Your task to perform on an android device: Open the calendar and show me this week's events? Image 0: 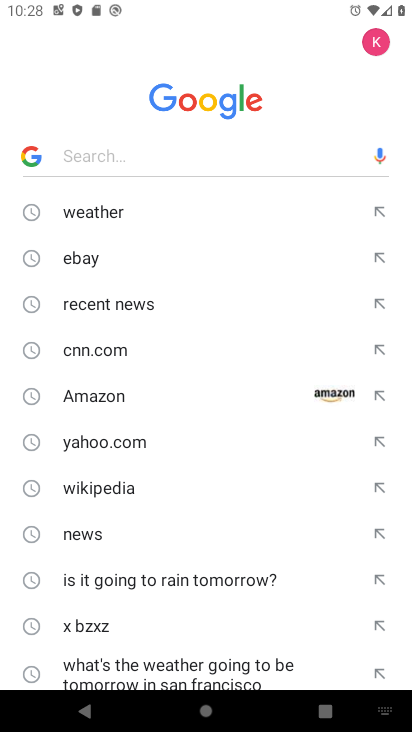
Step 0: press home button
Your task to perform on an android device: Open the calendar and show me this week's events? Image 1: 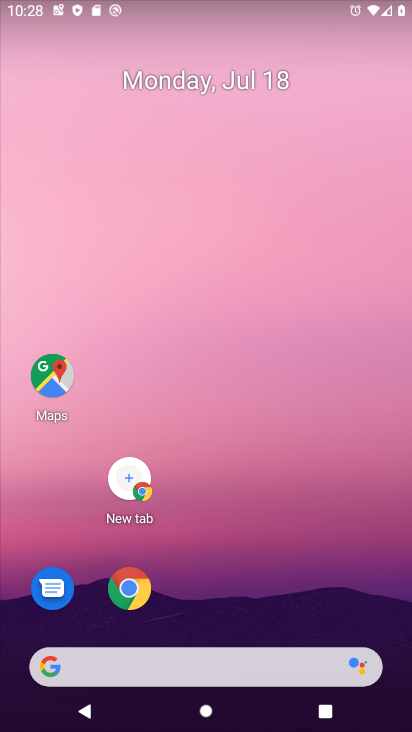
Step 1: click (210, 83)
Your task to perform on an android device: Open the calendar and show me this week's events? Image 2: 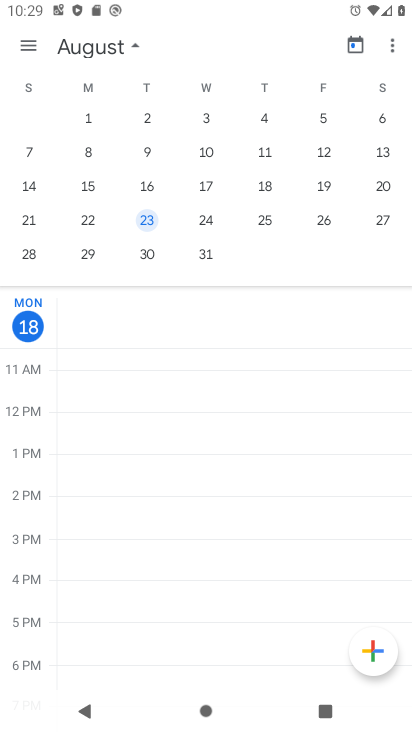
Step 2: drag from (13, 165) to (401, 238)
Your task to perform on an android device: Open the calendar and show me this week's events? Image 3: 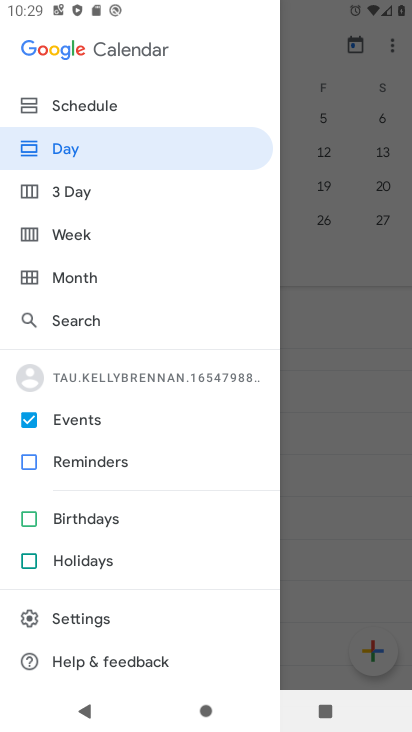
Step 3: click (347, 243)
Your task to perform on an android device: Open the calendar and show me this week's events? Image 4: 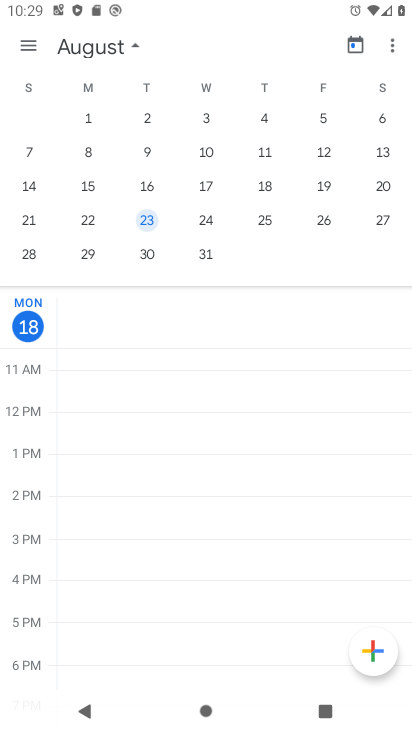
Step 4: drag from (18, 124) to (353, 255)
Your task to perform on an android device: Open the calendar and show me this week's events? Image 5: 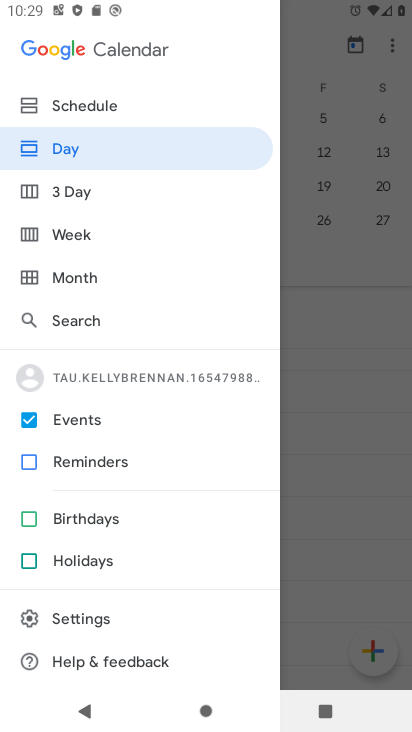
Step 5: click (364, 240)
Your task to perform on an android device: Open the calendar and show me this week's events? Image 6: 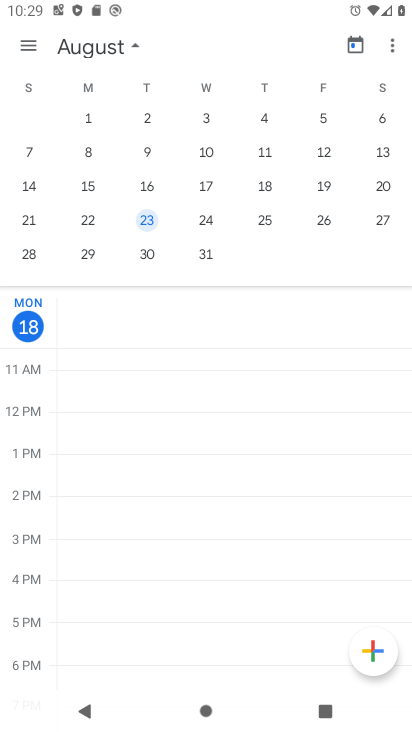
Step 6: drag from (33, 273) to (366, 243)
Your task to perform on an android device: Open the calendar and show me this week's events? Image 7: 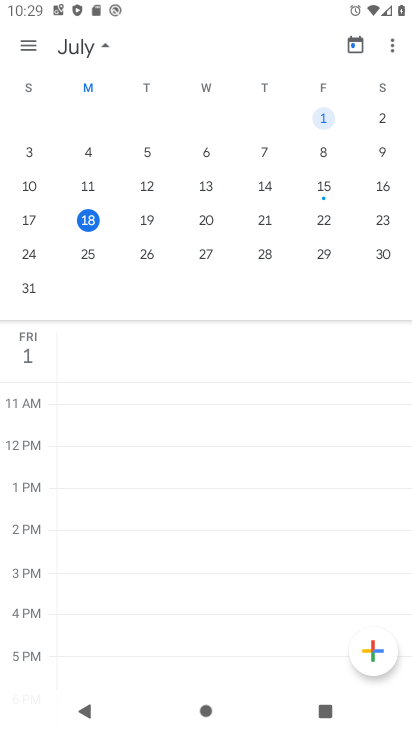
Step 7: click (38, 48)
Your task to perform on an android device: Open the calendar and show me this week's events? Image 8: 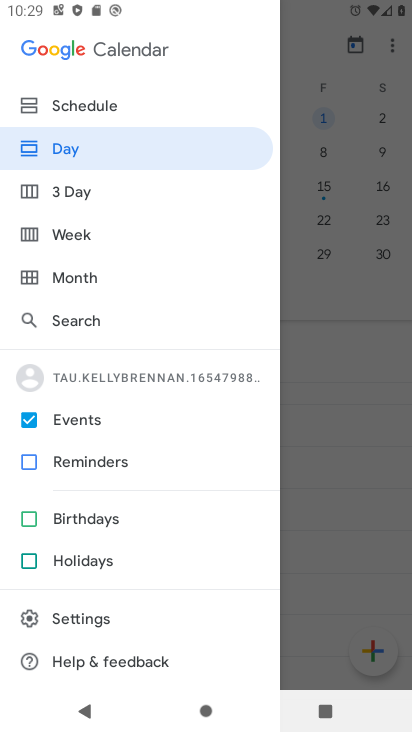
Step 8: click (81, 233)
Your task to perform on an android device: Open the calendar and show me this week's events? Image 9: 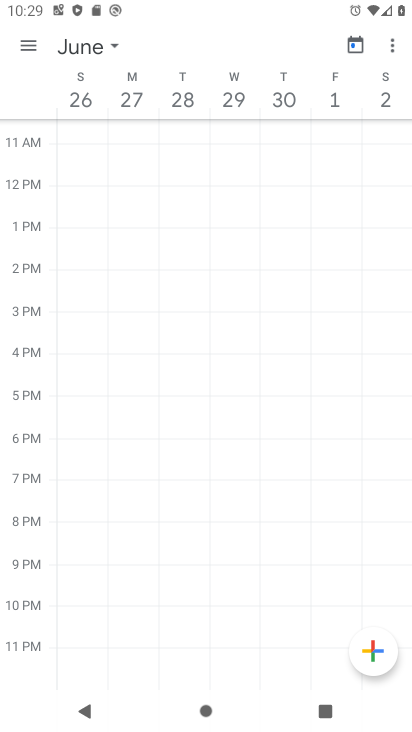
Step 9: task complete